Your task to perform on an android device: star an email in the gmail app Image 0: 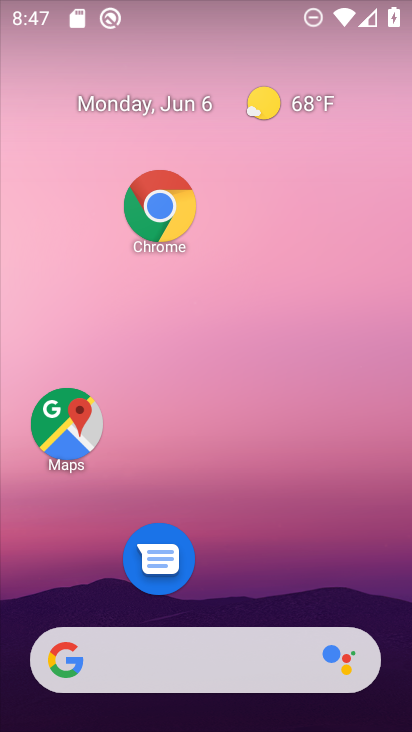
Step 0: drag from (245, 653) to (212, 76)
Your task to perform on an android device: star an email in the gmail app Image 1: 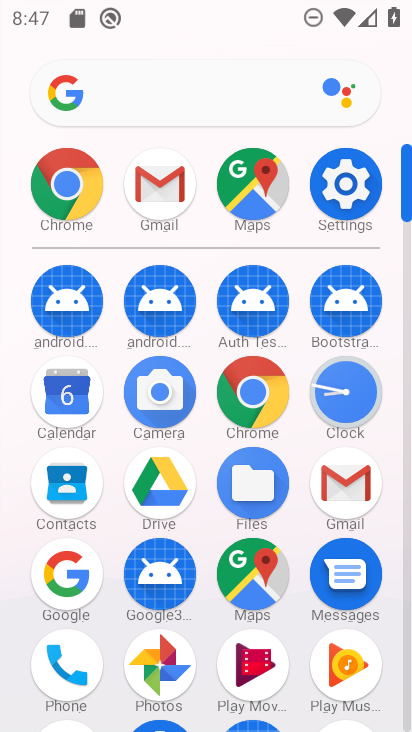
Step 1: click (346, 477)
Your task to perform on an android device: star an email in the gmail app Image 2: 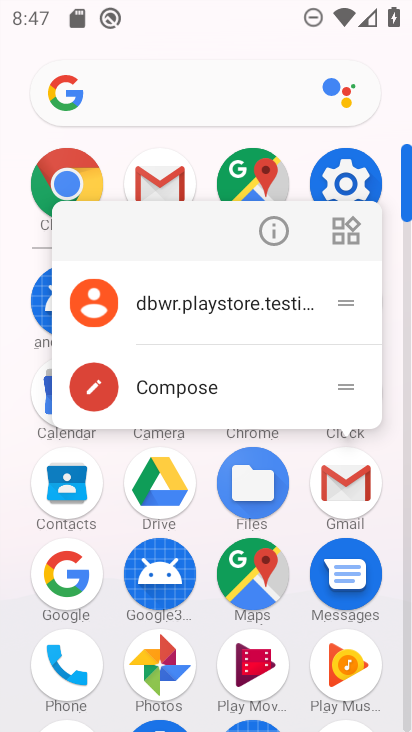
Step 2: click (345, 492)
Your task to perform on an android device: star an email in the gmail app Image 3: 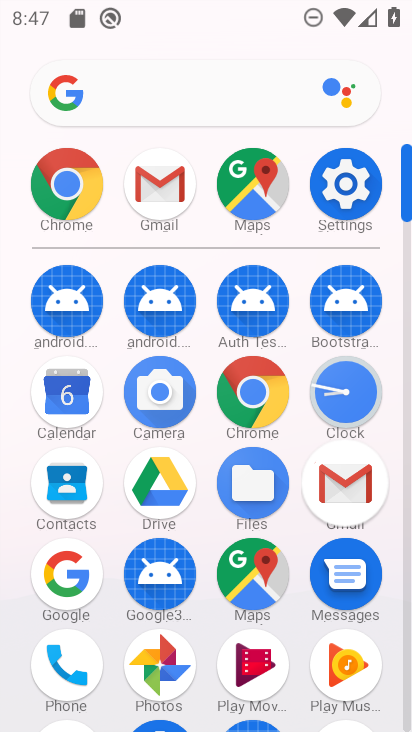
Step 3: click (344, 491)
Your task to perform on an android device: star an email in the gmail app Image 4: 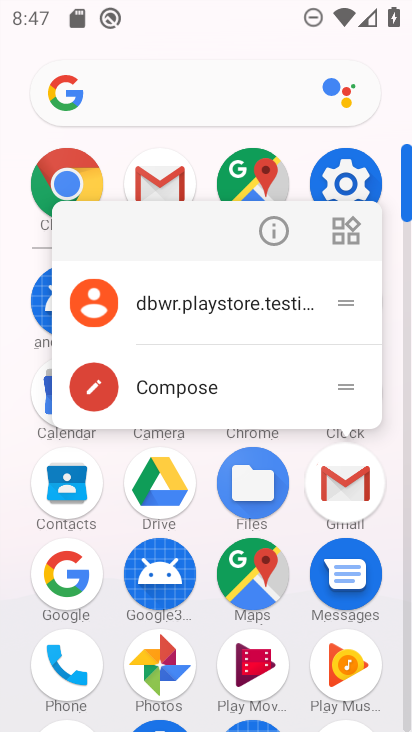
Step 4: click (344, 491)
Your task to perform on an android device: star an email in the gmail app Image 5: 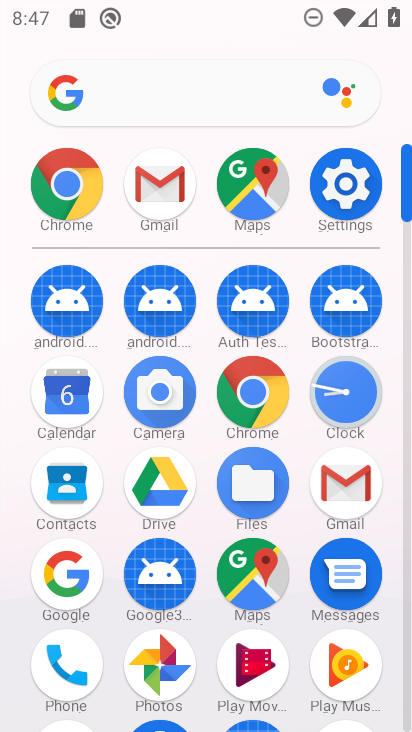
Step 5: click (344, 491)
Your task to perform on an android device: star an email in the gmail app Image 6: 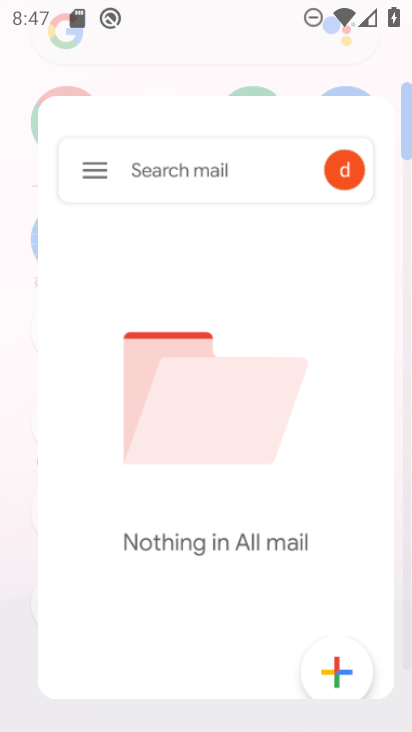
Step 6: click (344, 491)
Your task to perform on an android device: star an email in the gmail app Image 7: 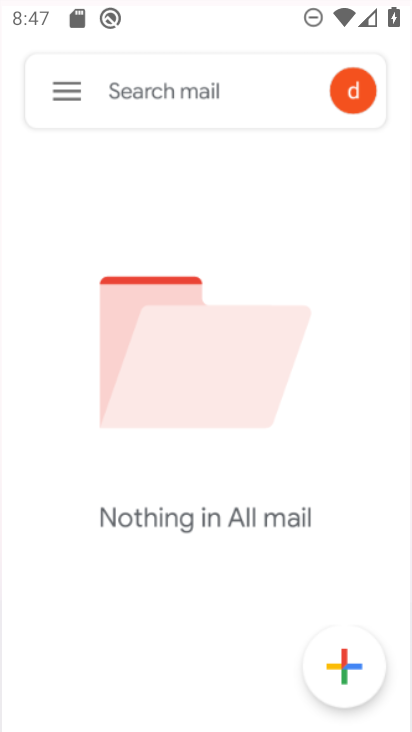
Step 7: click (346, 489)
Your task to perform on an android device: star an email in the gmail app Image 8: 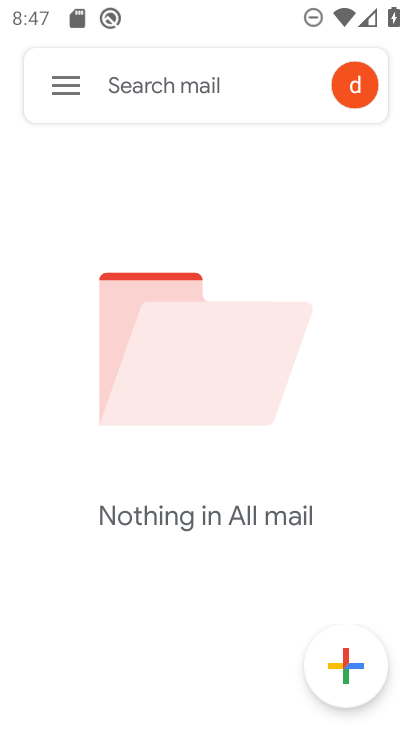
Step 8: click (71, 83)
Your task to perform on an android device: star an email in the gmail app Image 9: 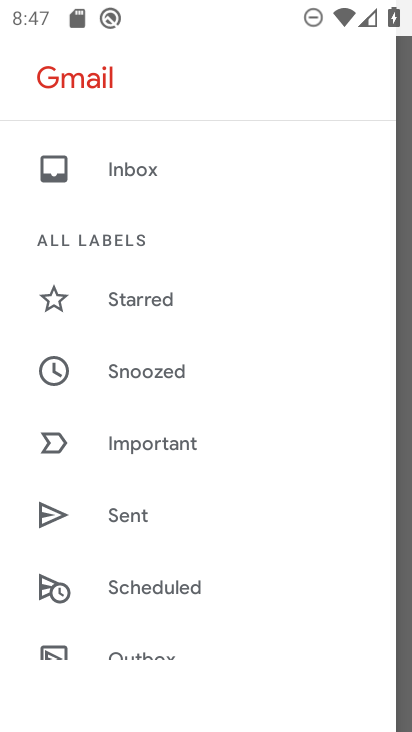
Step 9: drag from (163, 417) to (123, 151)
Your task to perform on an android device: star an email in the gmail app Image 10: 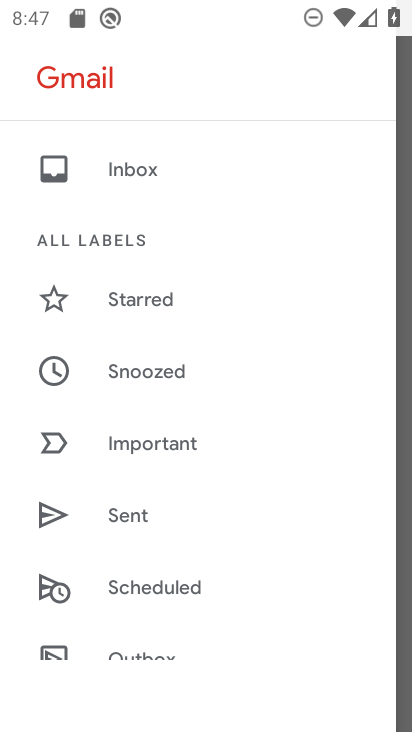
Step 10: click (219, 186)
Your task to perform on an android device: star an email in the gmail app Image 11: 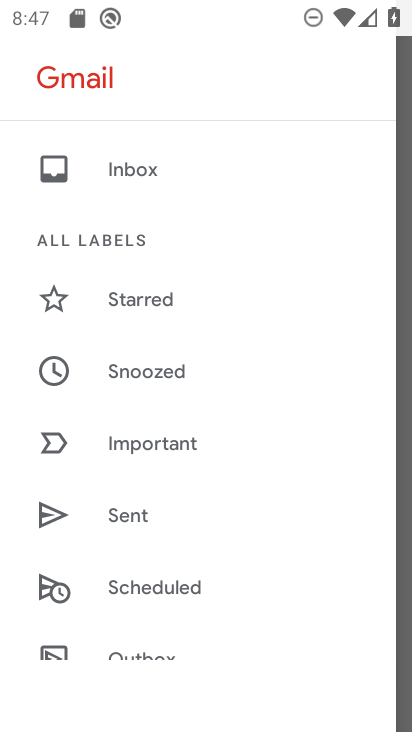
Step 11: drag from (249, 441) to (291, 131)
Your task to perform on an android device: star an email in the gmail app Image 12: 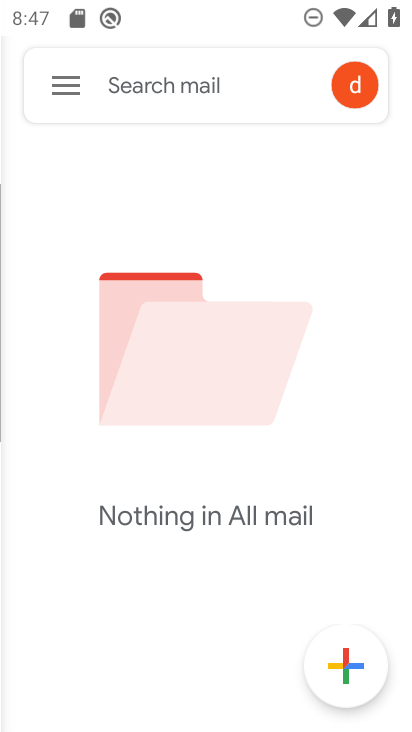
Step 12: drag from (175, 496) to (156, 139)
Your task to perform on an android device: star an email in the gmail app Image 13: 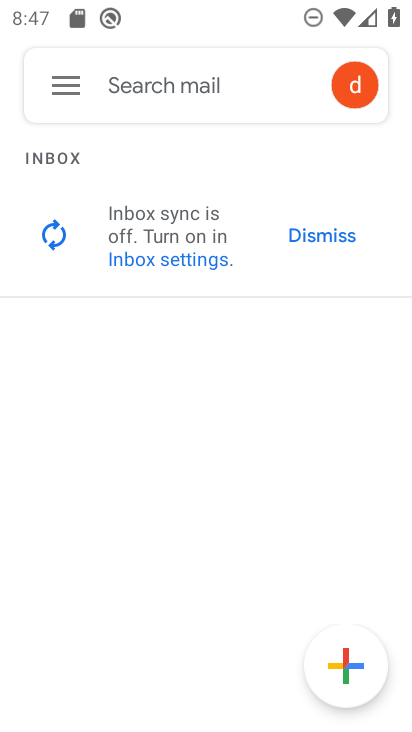
Step 13: click (60, 83)
Your task to perform on an android device: star an email in the gmail app Image 14: 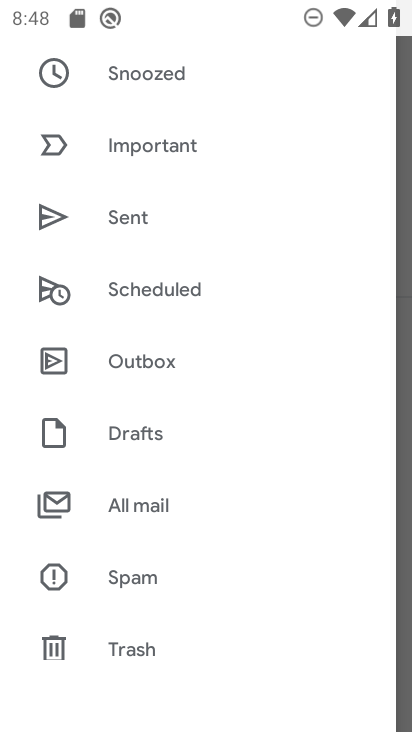
Step 14: click (146, 498)
Your task to perform on an android device: star an email in the gmail app Image 15: 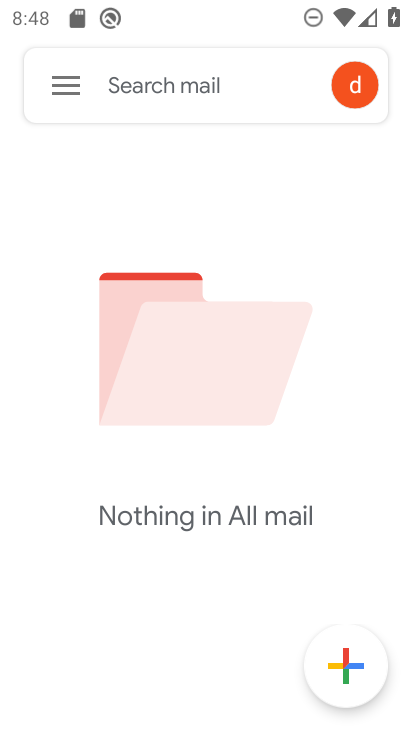
Step 15: task complete